Your task to perform on an android device: Search for a new foundation on Sephora Image 0: 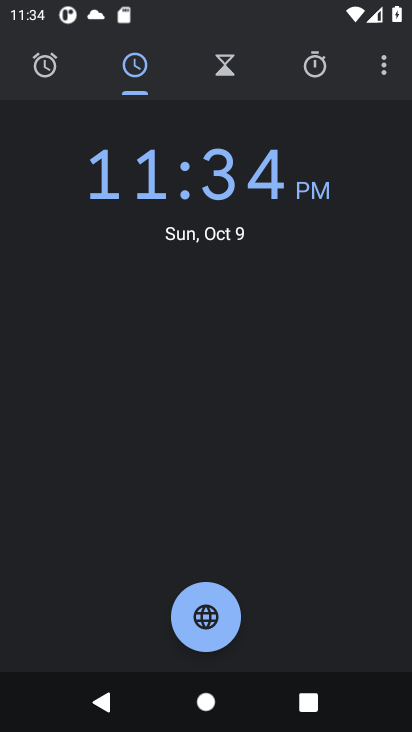
Step 0: press home button
Your task to perform on an android device: Search for a new foundation on Sephora Image 1: 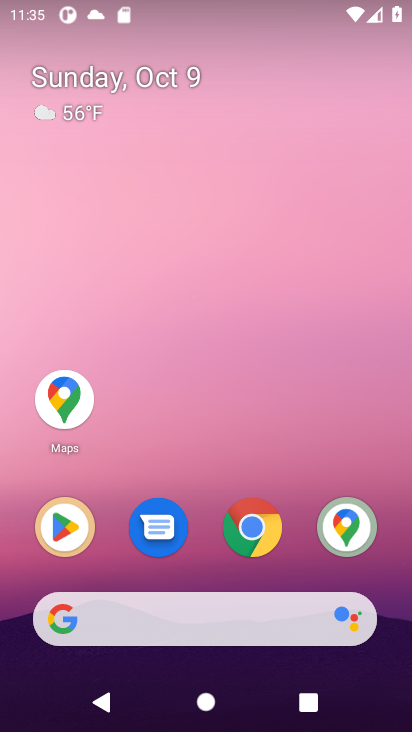
Step 1: click (186, 618)
Your task to perform on an android device: Search for a new foundation on Sephora Image 2: 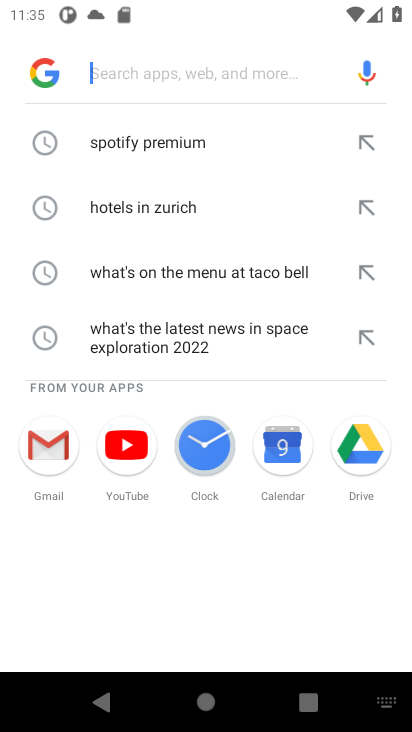
Step 2: click (141, 83)
Your task to perform on an android device: Search for a new foundation on Sephora Image 3: 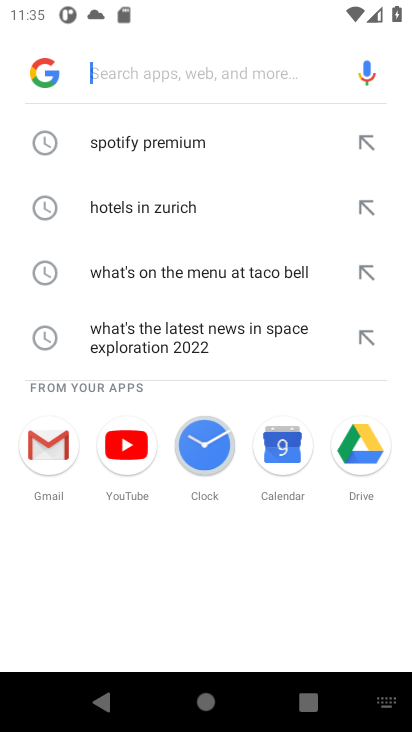
Step 3: type "Search for a new foundation on Sephora"
Your task to perform on an android device: Search for a new foundation on Sephora Image 4: 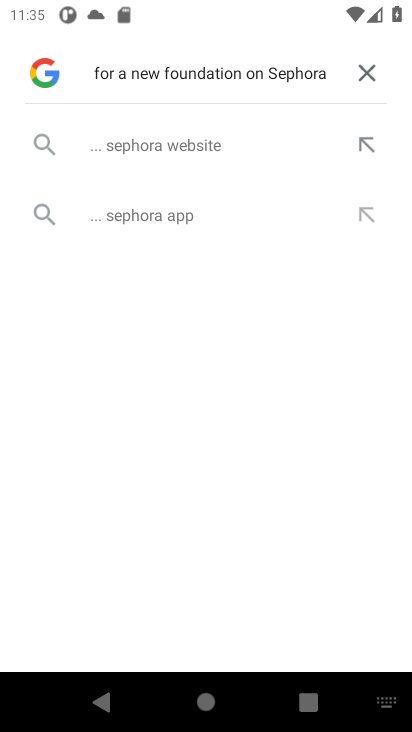
Step 4: click (152, 145)
Your task to perform on an android device: Search for a new foundation on Sephora Image 5: 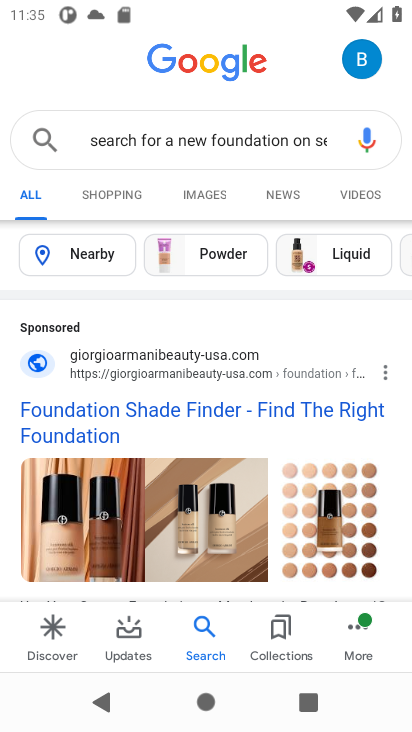
Step 5: drag from (171, 526) to (156, 344)
Your task to perform on an android device: Search for a new foundation on Sephora Image 6: 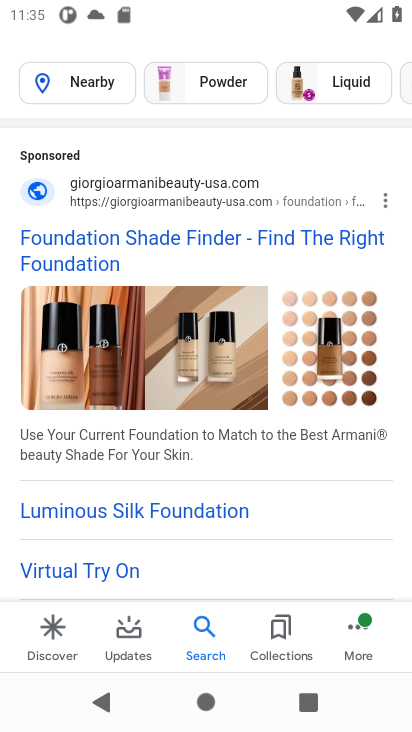
Step 6: click (162, 379)
Your task to perform on an android device: Search for a new foundation on Sephora Image 7: 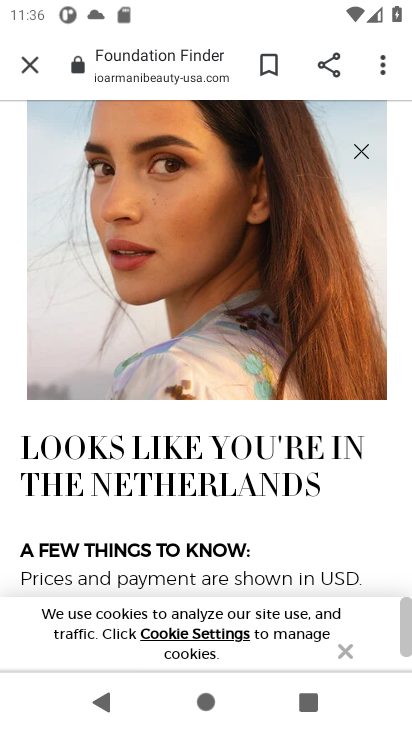
Step 7: drag from (181, 510) to (192, 297)
Your task to perform on an android device: Search for a new foundation on Sephora Image 8: 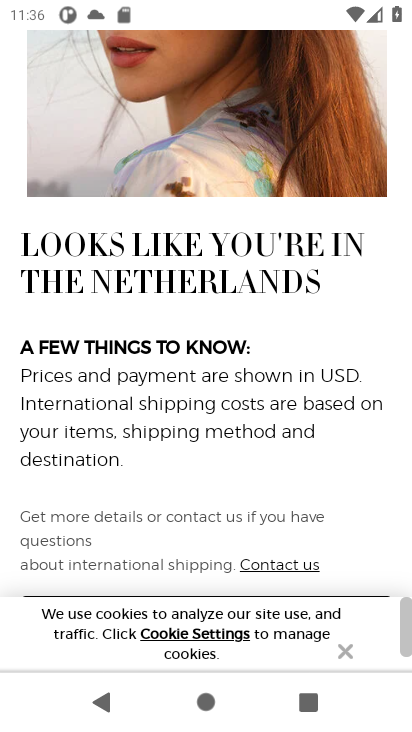
Step 8: drag from (179, 471) to (191, 278)
Your task to perform on an android device: Search for a new foundation on Sephora Image 9: 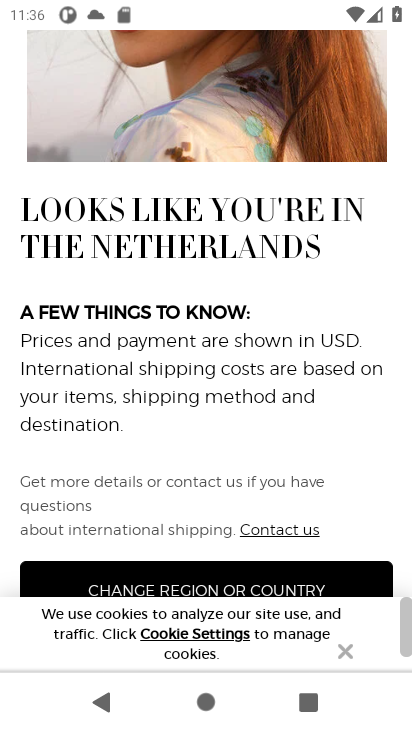
Step 9: drag from (154, 232) to (194, 487)
Your task to perform on an android device: Search for a new foundation on Sephora Image 10: 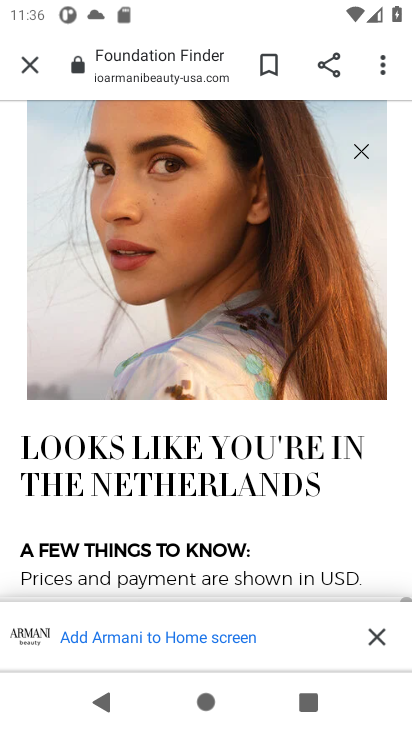
Step 10: drag from (201, 251) to (206, 450)
Your task to perform on an android device: Search for a new foundation on Sephora Image 11: 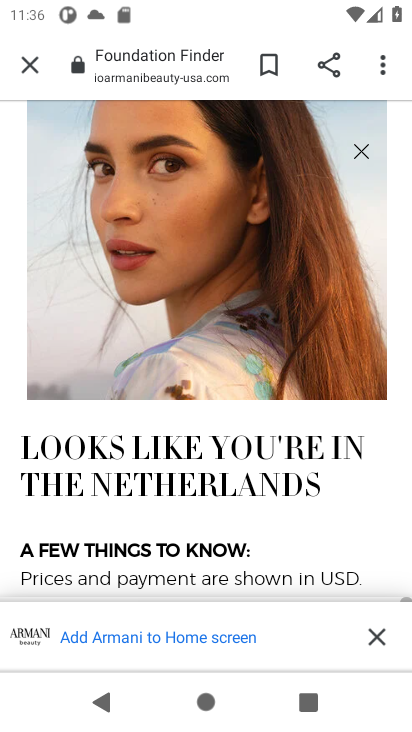
Step 11: click (37, 66)
Your task to perform on an android device: Search for a new foundation on Sephora Image 12: 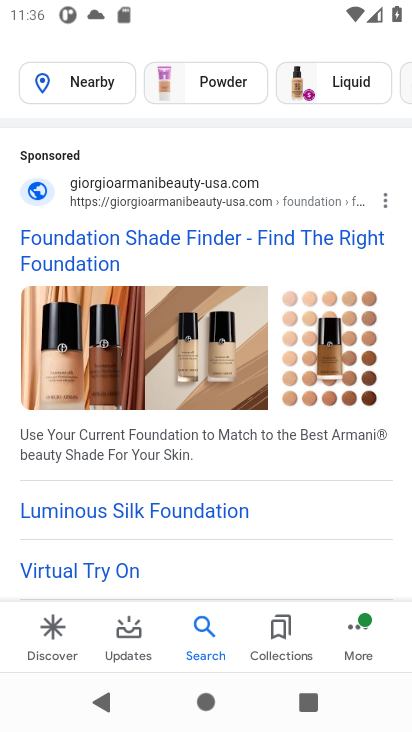
Step 12: drag from (230, 490) to (218, 272)
Your task to perform on an android device: Search for a new foundation on Sephora Image 13: 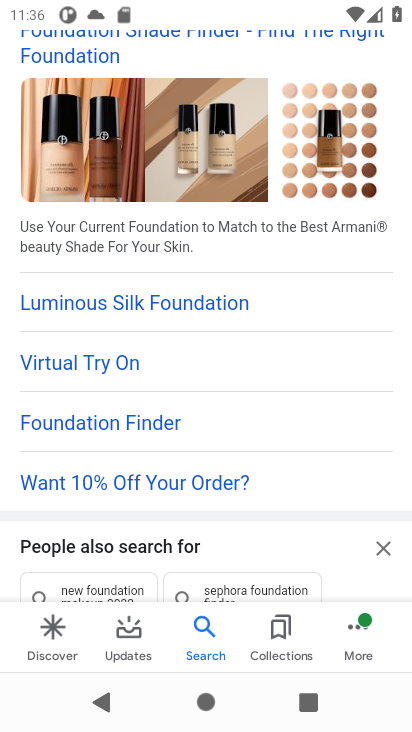
Step 13: drag from (199, 512) to (200, 222)
Your task to perform on an android device: Search for a new foundation on Sephora Image 14: 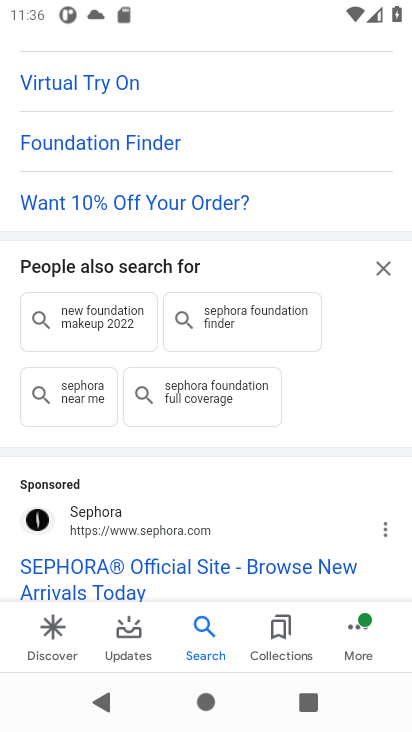
Step 14: drag from (148, 487) to (150, 259)
Your task to perform on an android device: Search for a new foundation on Sephora Image 15: 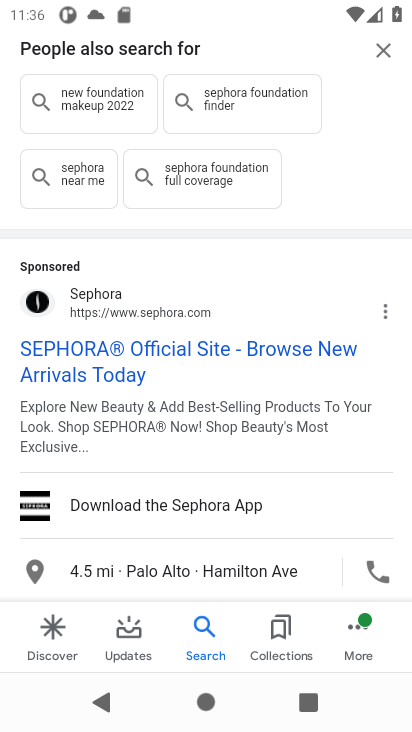
Step 15: click (83, 368)
Your task to perform on an android device: Search for a new foundation on Sephora Image 16: 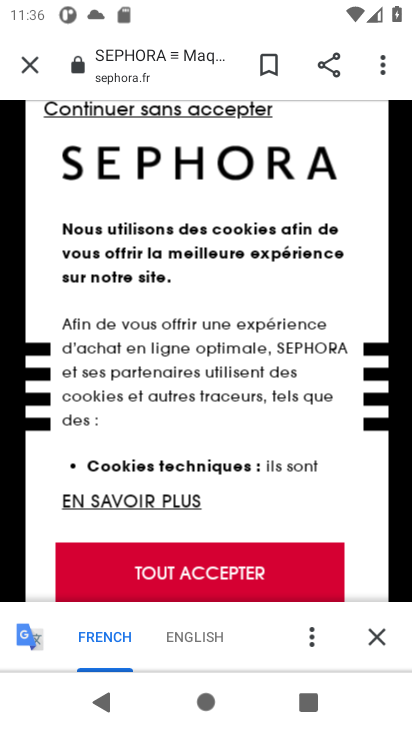
Step 16: click (205, 559)
Your task to perform on an android device: Search for a new foundation on Sephora Image 17: 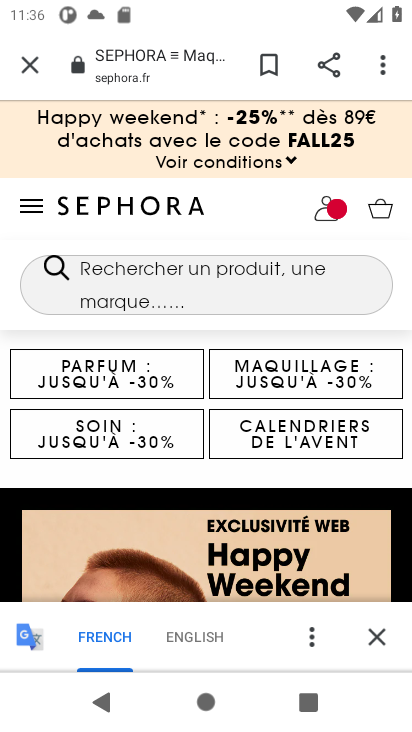
Step 17: click (125, 274)
Your task to perform on an android device: Search for a new foundation on Sephora Image 18: 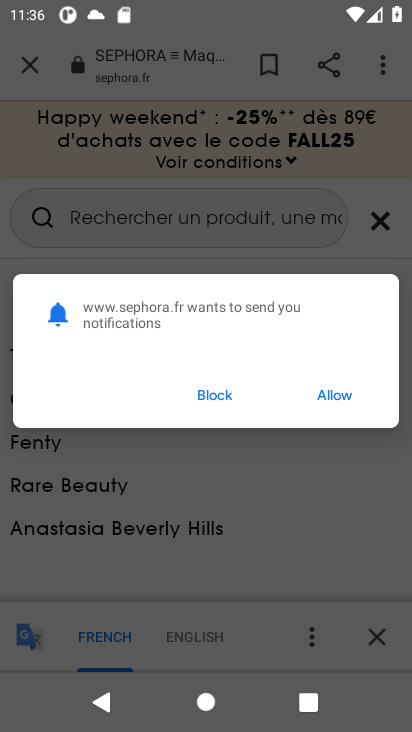
Step 18: click (212, 387)
Your task to perform on an android device: Search for a new foundation on Sephora Image 19: 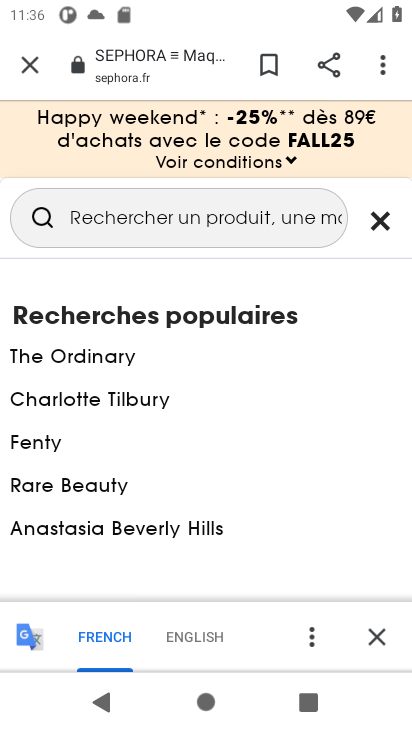
Step 19: type "foundation"
Your task to perform on an android device: Search for a new foundation on Sephora Image 20: 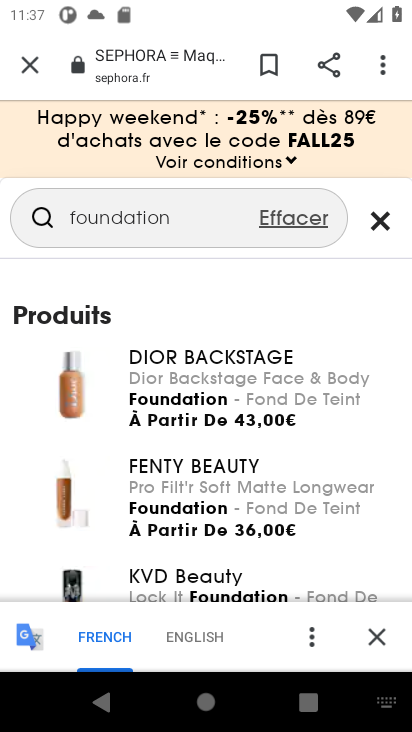
Step 20: click (68, 216)
Your task to perform on an android device: Search for a new foundation on Sephora Image 21: 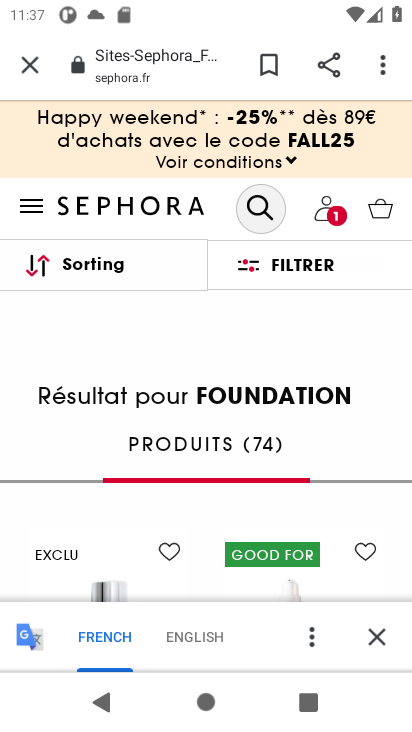
Step 21: drag from (157, 443) to (163, 219)
Your task to perform on an android device: Search for a new foundation on Sephora Image 22: 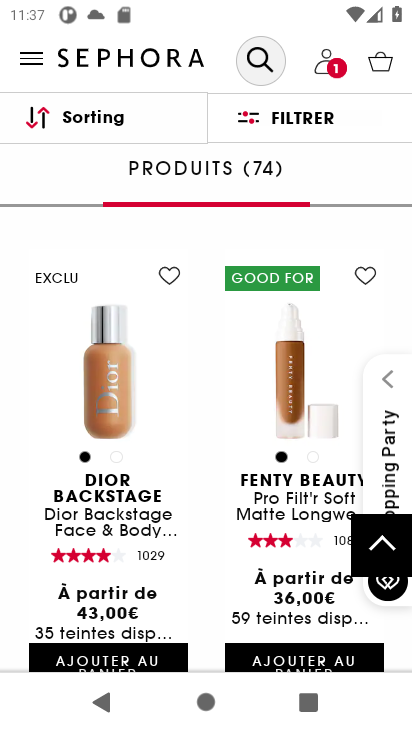
Step 22: drag from (194, 502) to (187, 302)
Your task to perform on an android device: Search for a new foundation on Sephora Image 23: 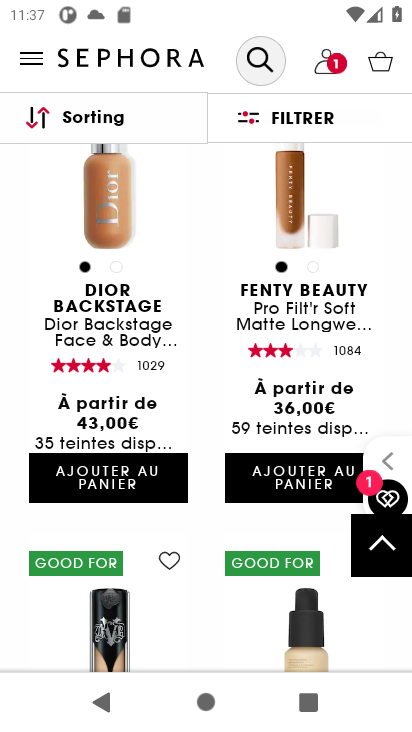
Step 23: drag from (187, 302) to (164, 456)
Your task to perform on an android device: Search for a new foundation on Sephora Image 24: 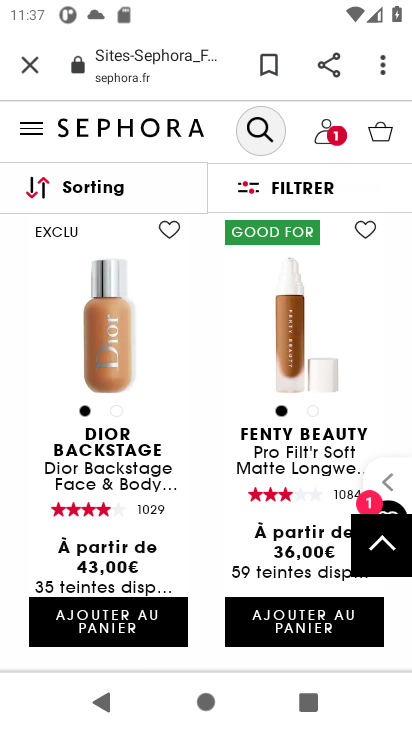
Step 24: click (253, 130)
Your task to perform on an android device: Search for a new foundation on Sephora Image 25: 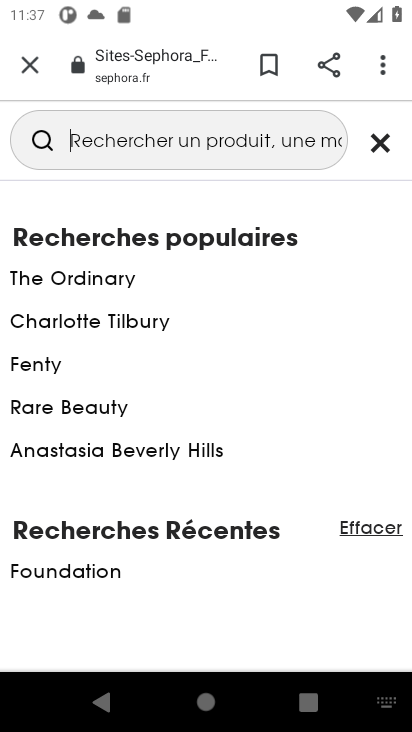
Step 25: type "new foundation"
Your task to perform on an android device: Search for a new foundation on Sephora Image 26: 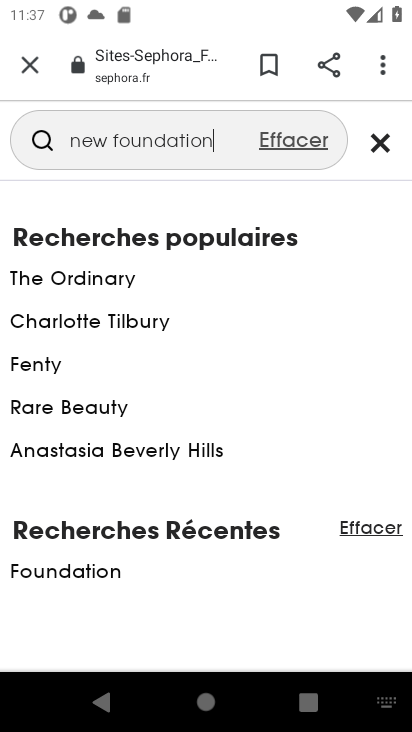
Step 26: click (34, 140)
Your task to perform on an android device: Search for a new foundation on Sephora Image 27: 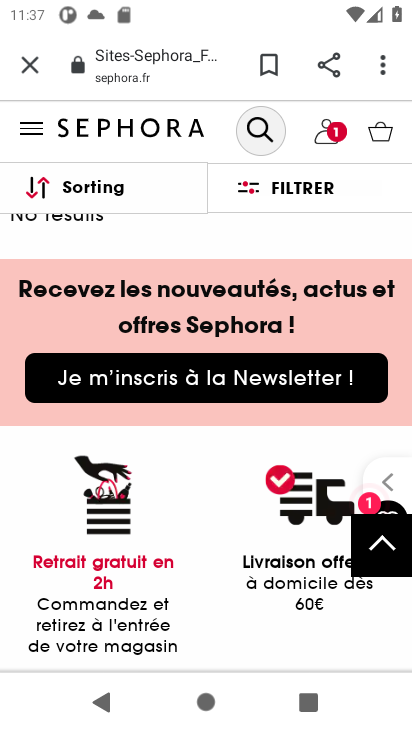
Step 27: task complete